Your task to perform on an android device: Toggle the flashlight Image 0: 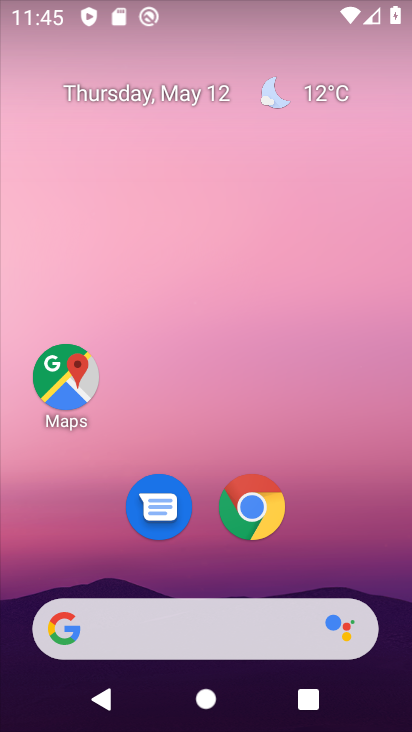
Step 0: drag from (333, 512) to (311, 112)
Your task to perform on an android device: Toggle the flashlight Image 1: 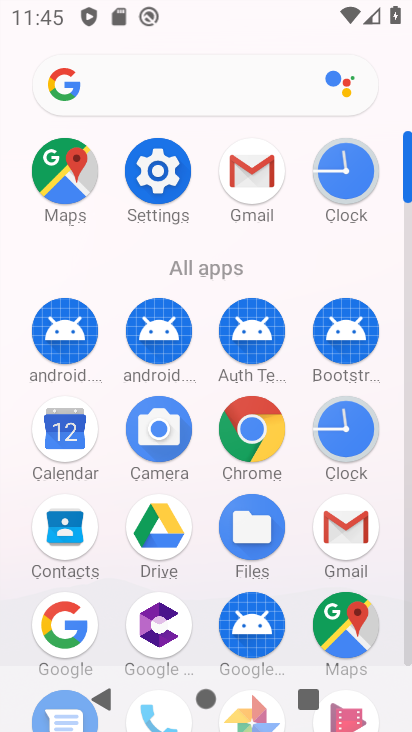
Step 1: click (165, 196)
Your task to perform on an android device: Toggle the flashlight Image 2: 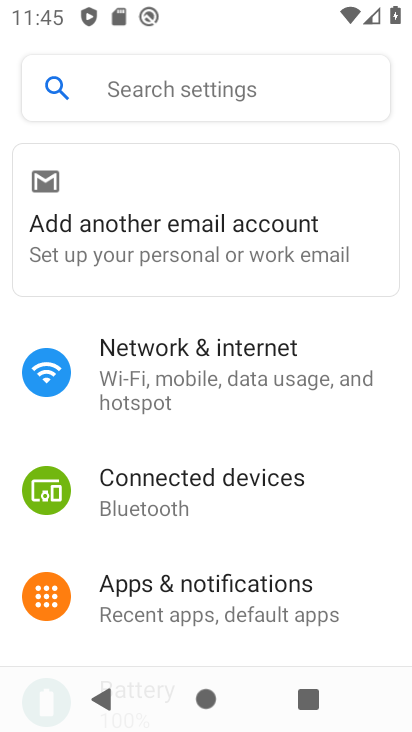
Step 2: click (187, 105)
Your task to perform on an android device: Toggle the flashlight Image 3: 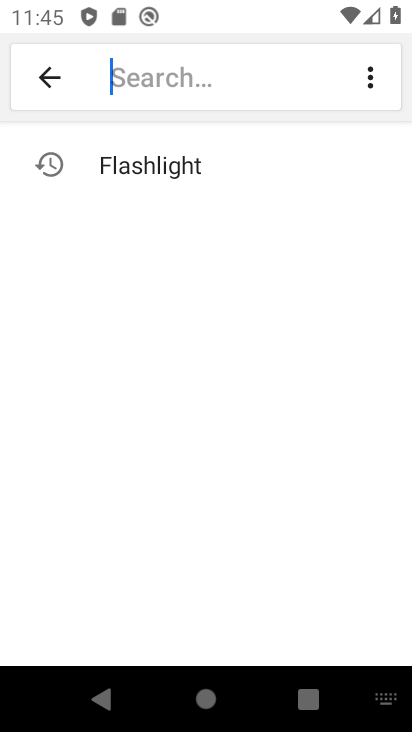
Step 3: type "Flashlight"
Your task to perform on an android device: Toggle the flashlight Image 4: 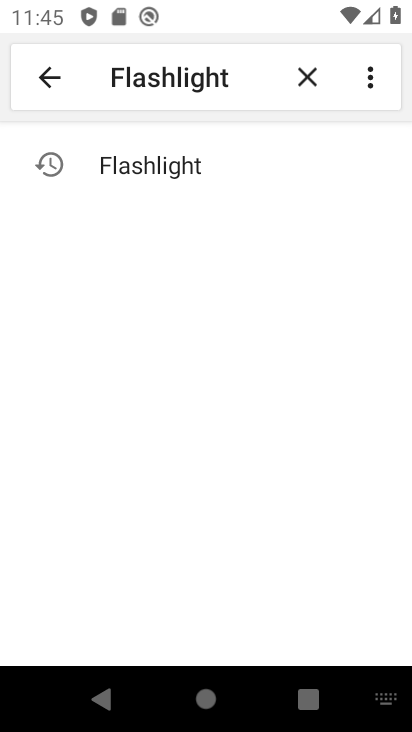
Step 4: click (174, 173)
Your task to perform on an android device: Toggle the flashlight Image 5: 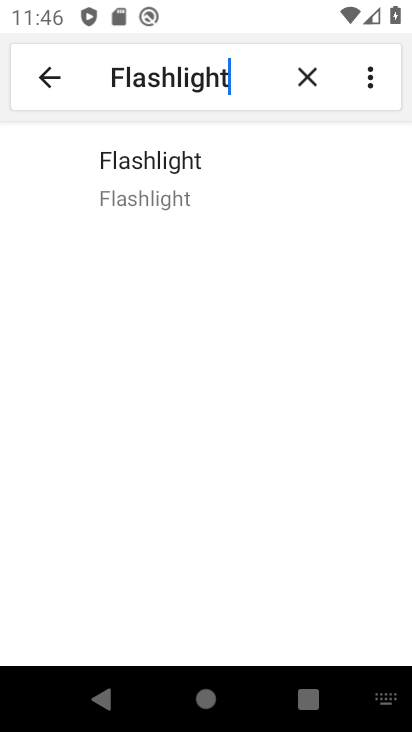
Step 5: click (177, 197)
Your task to perform on an android device: Toggle the flashlight Image 6: 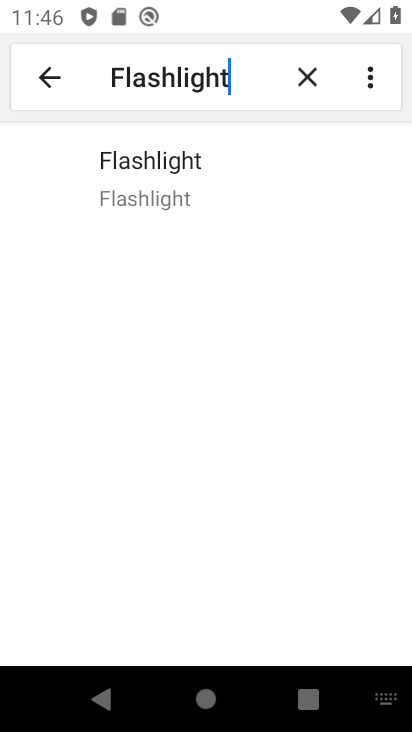
Step 6: task complete